Your task to perform on an android device: Open CNN.com Image 0: 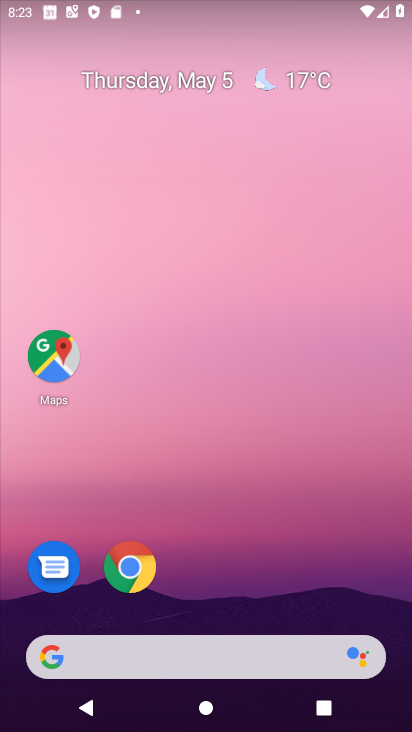
Step 0: drag from (212, 574) to (229, 26)
Your task to perform on an android device: Open CNN.com Image 1: 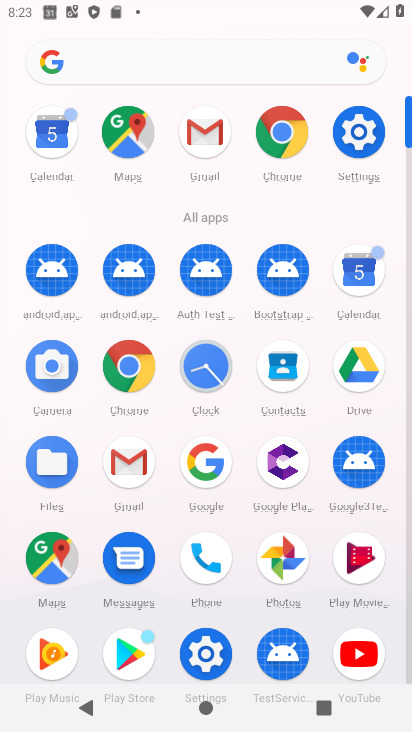
Step 1: click (283, 135)
Your task to perform on an android device: Open CNN.com Image 2: 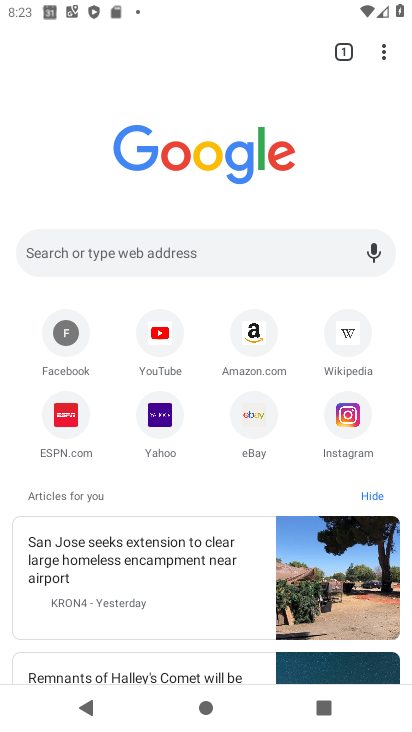
Step 2: click (278, 250)
Your task to perform on an android device: Open CNN.com Image 3: 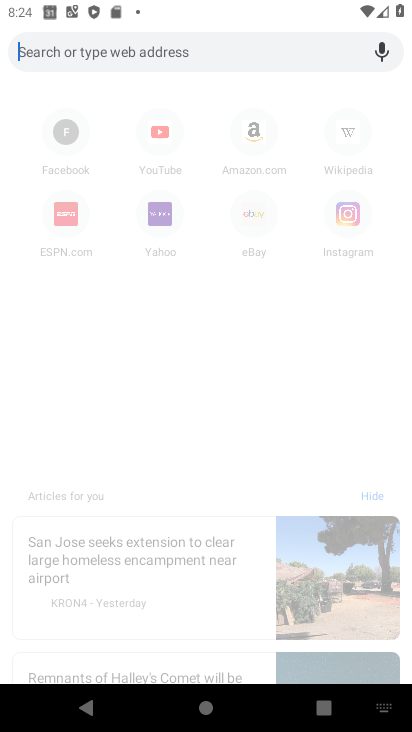
Step 3: type "cnn.com"
Your task to perform on an android device: Open CNN.com Image 4: 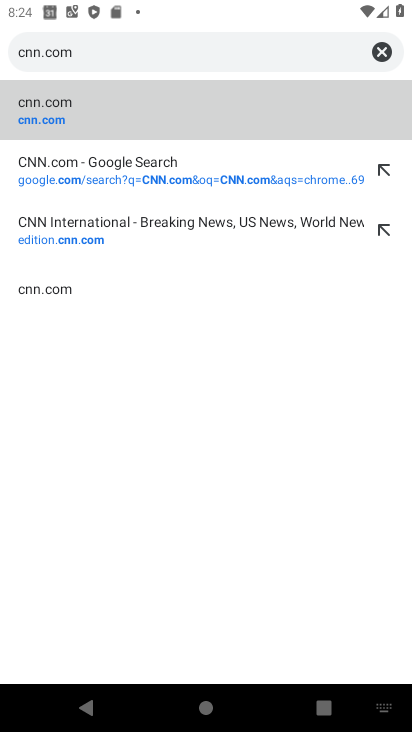
Step 4: click (91, 236)
Your task to perform on an android device: Open CNN.com Image 5: 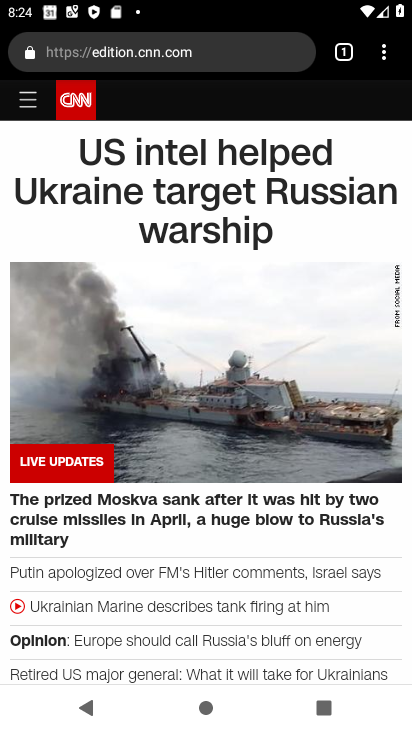
Step 5: task complete